Your task to perform on an android device: Set the phone to "Do not disturb". Image 0: 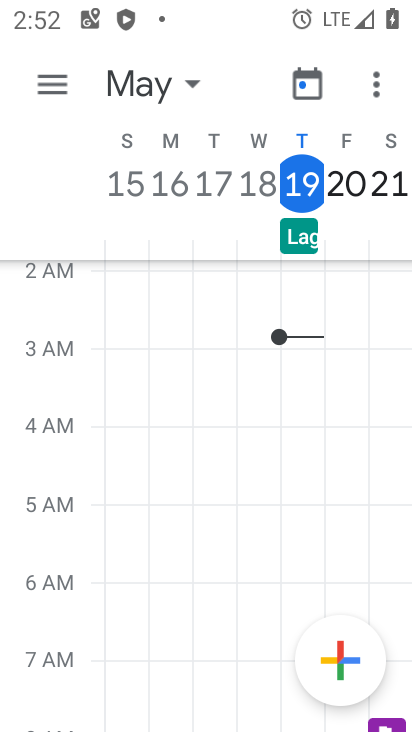
Step 0: press home button
Your task to perform on an android device: Set the phone to "Do not disturb". Image 1: 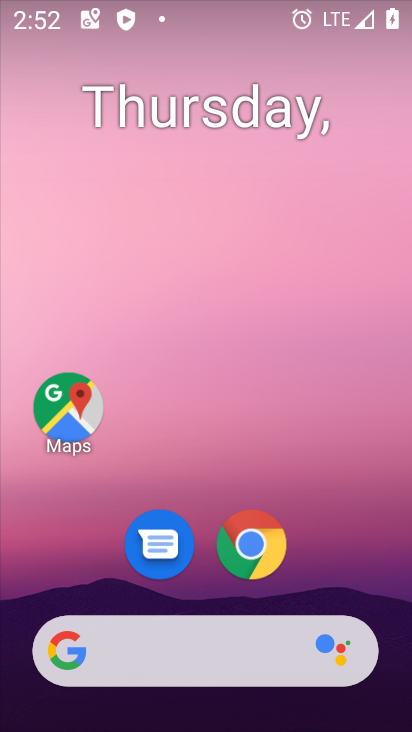
Step 1: drag from (315, 566) to (315, 389)
Your task to perform on an android device: Set the phone to "Do not disturb". Image 2: 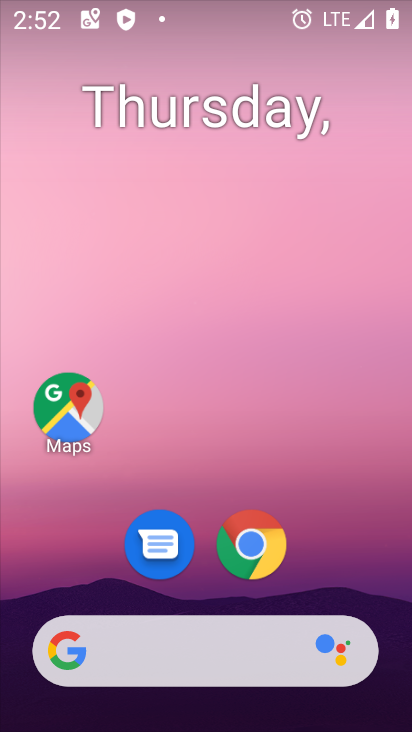
Step 2: drag from (359, 565) to (360, 256)
Your task to perform on an android device: Set the phone to "Do not disturb". Image 3: 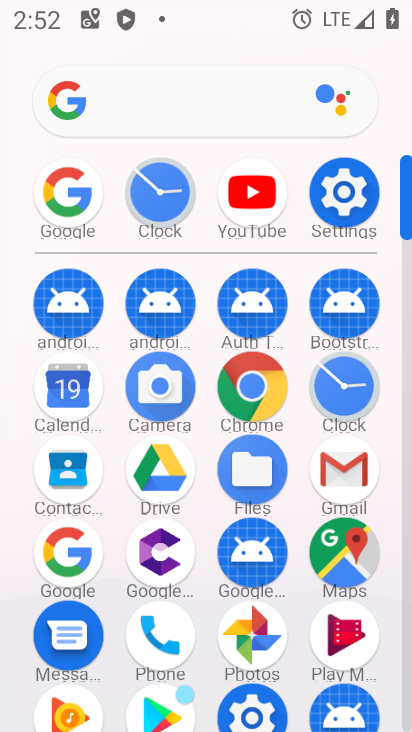
Step 3: click (338, 209)
Your task to perform on an android device: Set the phone to "Do not disturb". Image 4: 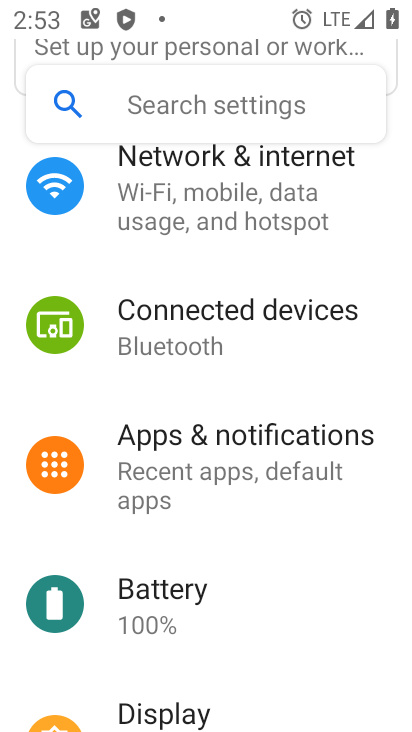
Step 4: click (254, 497)
Your task to perform on an android device: Set the phone to "Do not disturb". Image 5: 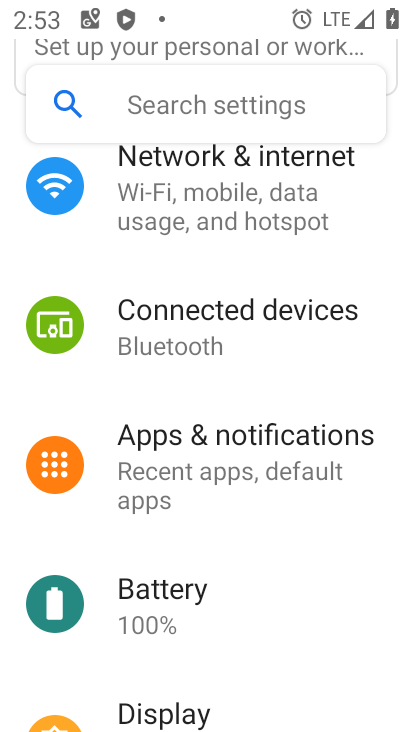
Step 5: drag from (275, 669) to (299, 324)
Your task to perform on an android device: Set the phone to "Do not disturb". Image 6: 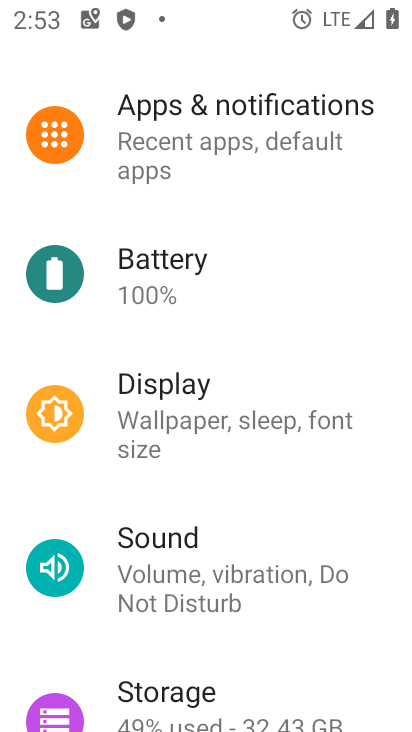
Step 6: click (192, 611)
Your task to perform on an android device: Set the phone to "Do not disturb". Image 7: 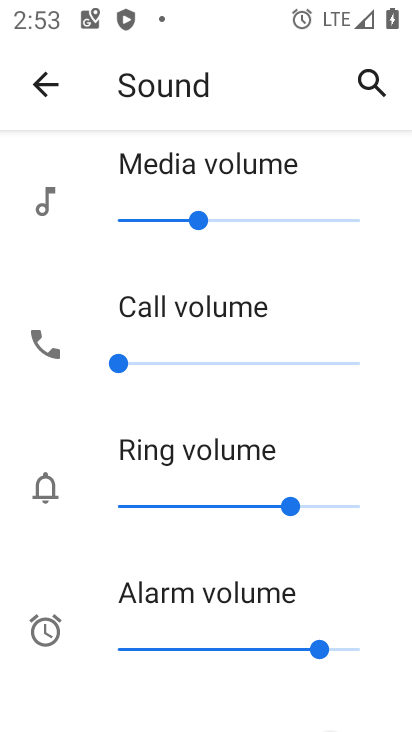
Step 7: drag from (303, 544) to (321, 213)
Your task to perform on an android device: Set the phone to "Do not disturb". Image 8: 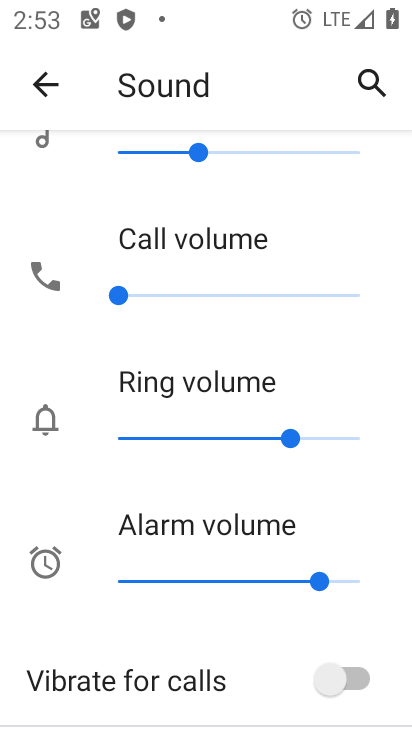
Step 8: drag from (267, 647) to (304, 26)
Your task to perform on an android device: Set the phone to "Do not disturb". Image 9: 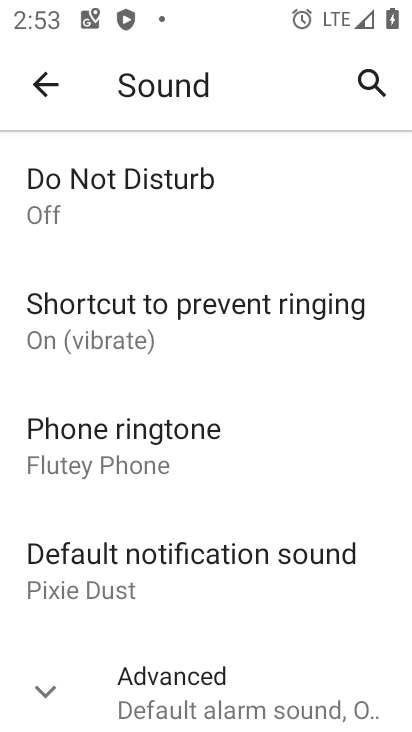
Step 9: click (177, 224)
Your task to perform on an android device: Set the phone to "Do not disturb". Image 10: 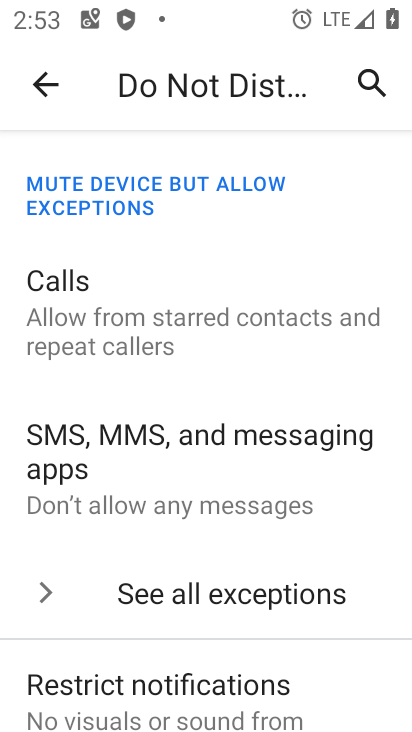
Step 10: drag from (340, 652) to (365, 311)
Your task to perform on an android device: Set the phone to "Do not disturb". Image 11: 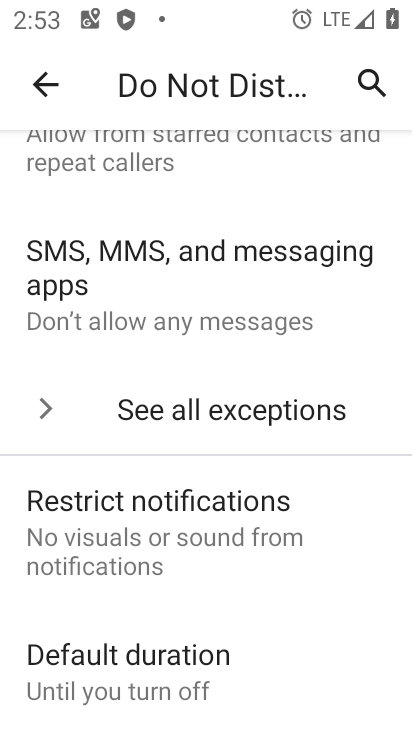
Step 11: drag from (350, 653) to (337, 183)
Your task to perform on an android device: Set the phone to "Do not disturb". Image 12: 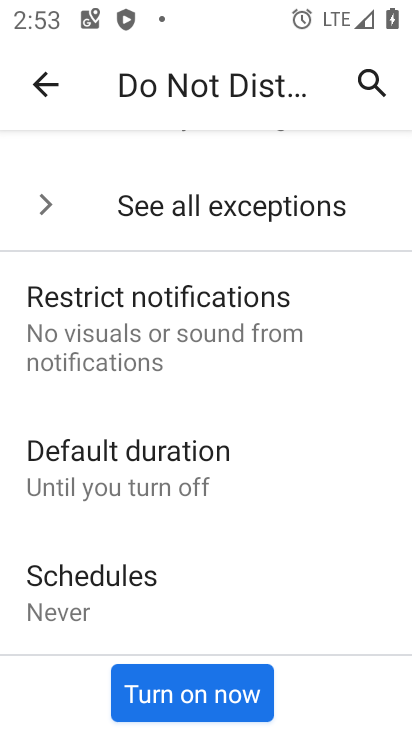
Step 12: click (233, 712)
Your task to perform on an android device: Set the phone to "Do not disturb". Image 13: 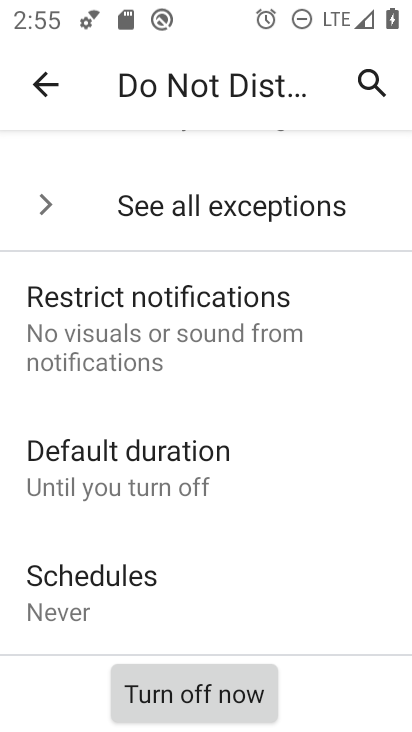
Step 13: task complete